Your task to perform on an android device: Show me popular videos on Youtube Image 0: 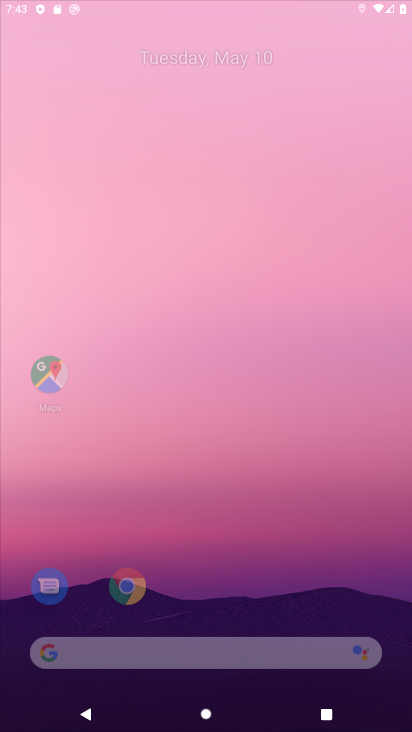
Step 0: click (246, 177)
Your task to perform on an android device: Show me popular videos on Youtube Image 1: 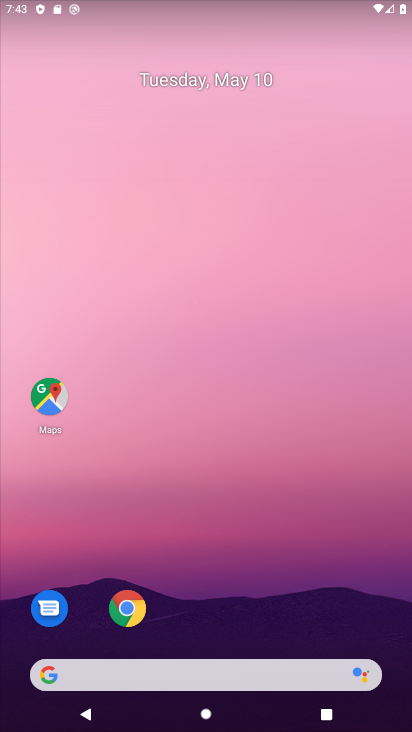
Step 1: drag from (207, 491) to (195, 223)
Your task to perform on an android device: Show me popular videos on Youtube Image 2: 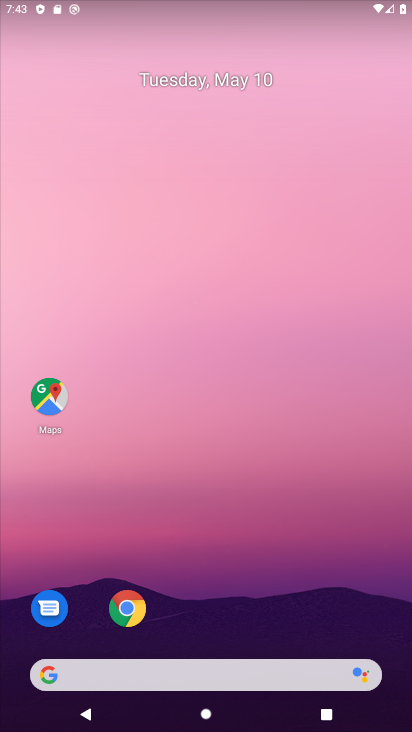
Step 2: drag from (231, 619) to (218, 198)
Your task to perform on an android device: Show me popular videos on Youtube Image 3: 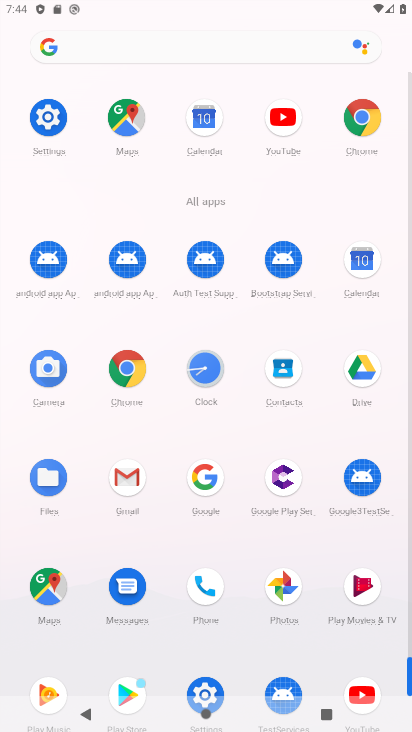
Step 3: click (132, 366)
Your task to perform on an android device: Show me popular videos on Youtube Image 4: 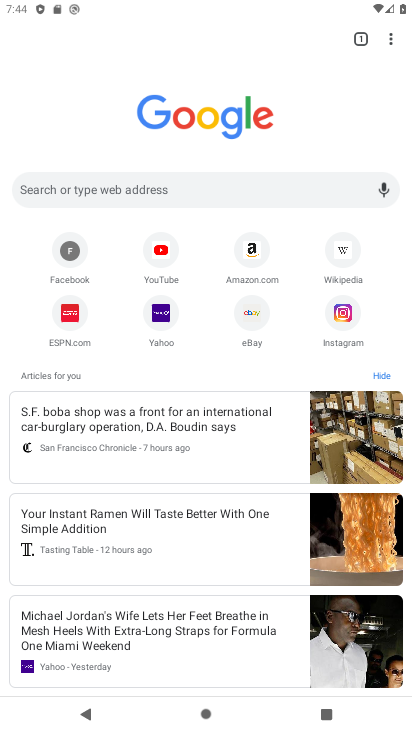
Step 4: click (195, 181)
Your task to perform on an android device: Show me popular videos on Youtube Image 5: 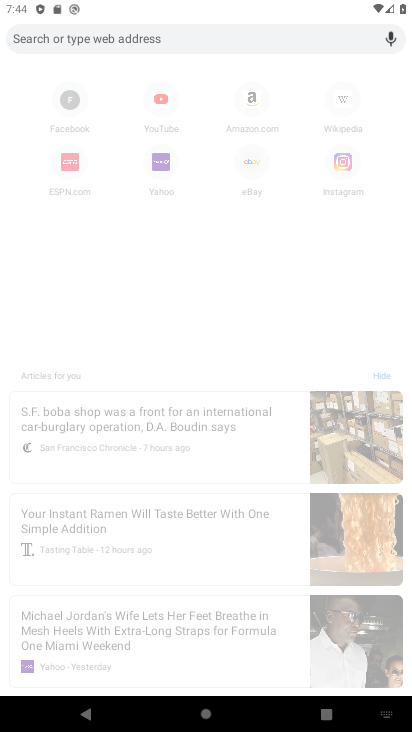
Step 5: press home button
Your task to perform on an android device: Show me popular videos on Youtube Image 6: 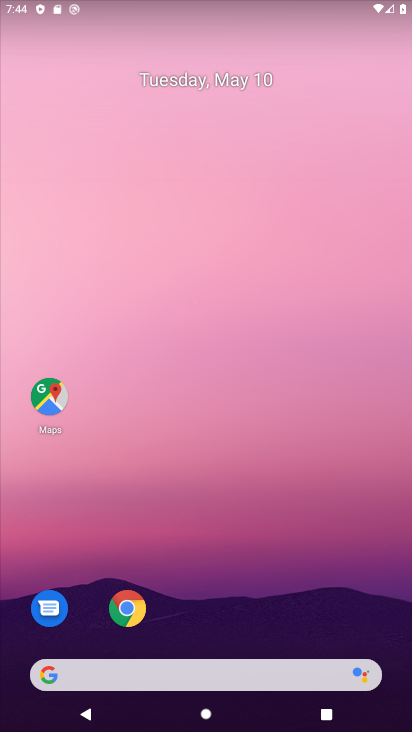
Step 6: drag from (256, 501) to (271, 272)
Your task to perform on an android device: Show me popular videos on Youtube Image 7: 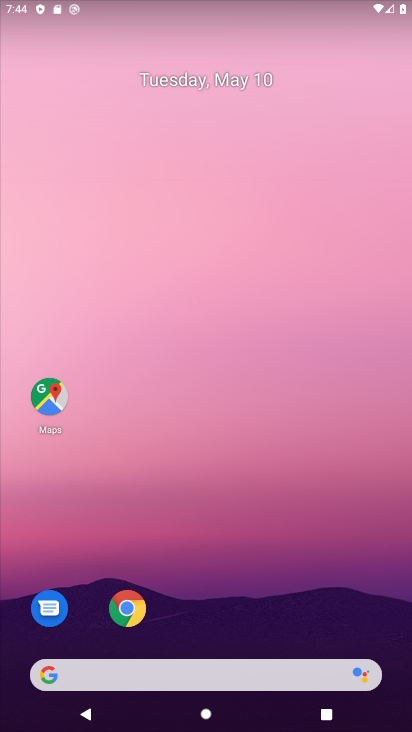
Step 7: drag from (253, 586) to (295, 231)
Your task to perform on an android device: Show me popular videos on Youtube Image 8: 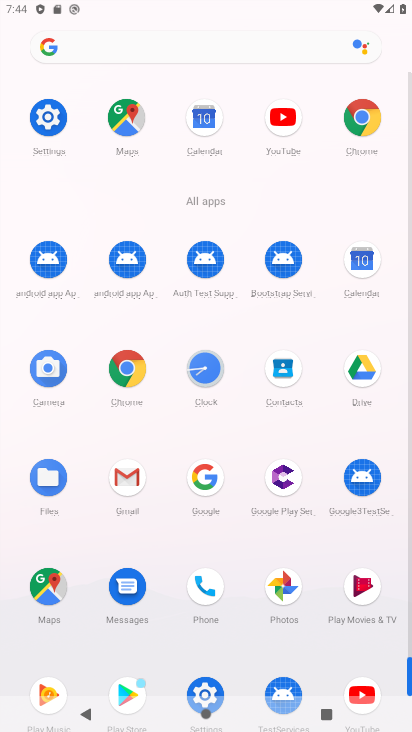
Step 8: click (364, 684)
Your task to perform on an android device: Show me popular videos on Youtube Image 9: 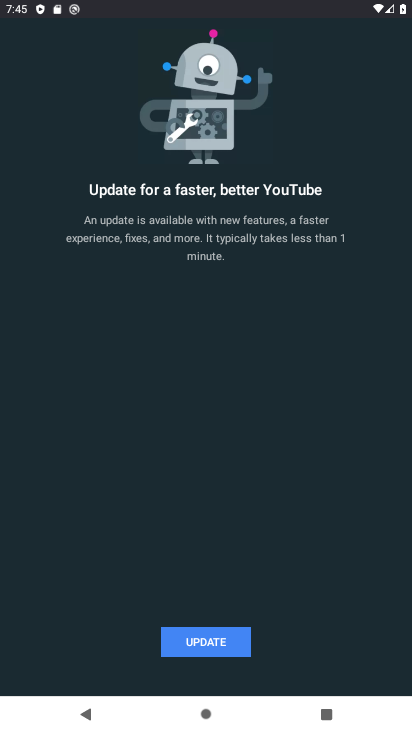
Step 9: task complete